Your task to perform on an android device: Is it going to rain tomorrow? Image 0: 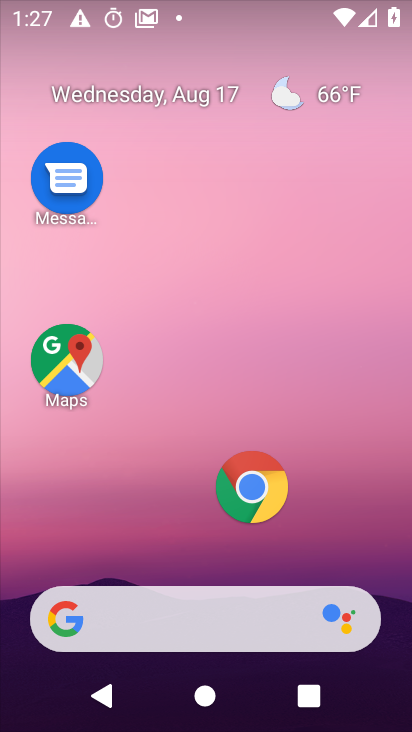
Step 0: press home button
Your task to perform on an android device: Is it going to rain tomorrow? Image 1: 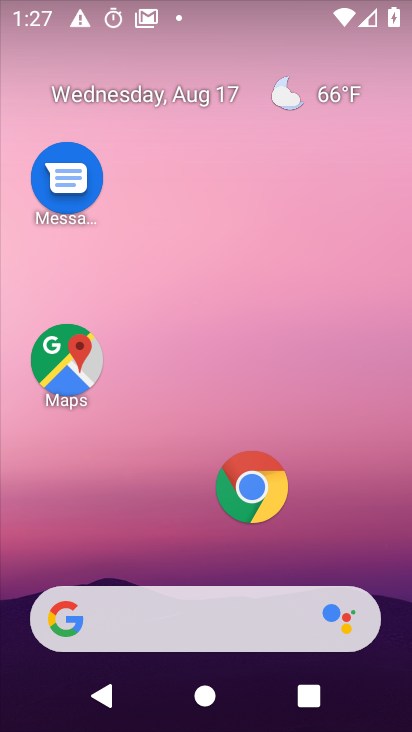
Step 1: drag from (195, 569) to (130, 43)
Your task to perform on an android device: Is it going to rain tomorrow? Image 2: 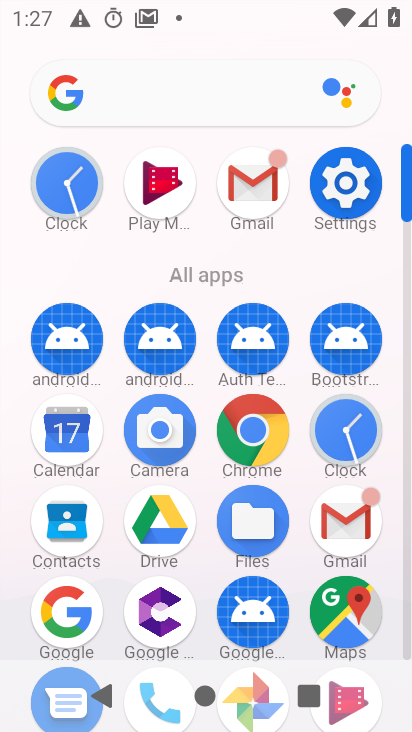
Step 2: click (85, 604)
Your task to perform on an android device: Is it going to rain tomorrow? Image 3: 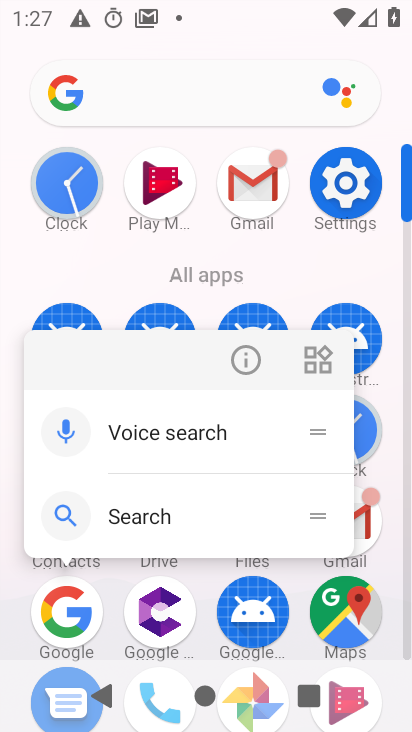
Step 3: click (152, 519)
Your task to perform on an android device: Is it going to rain tomorrow? Image 4: 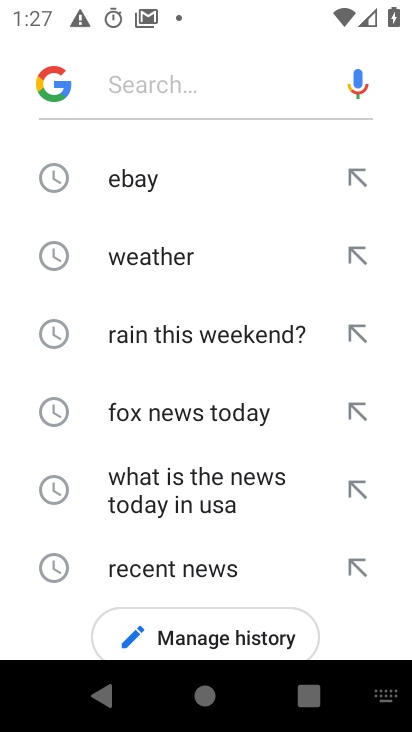
Step 4: type " rain tomorrow?"
Your task to perform on an android device: Is it going to rain tomorrow? Image 5: 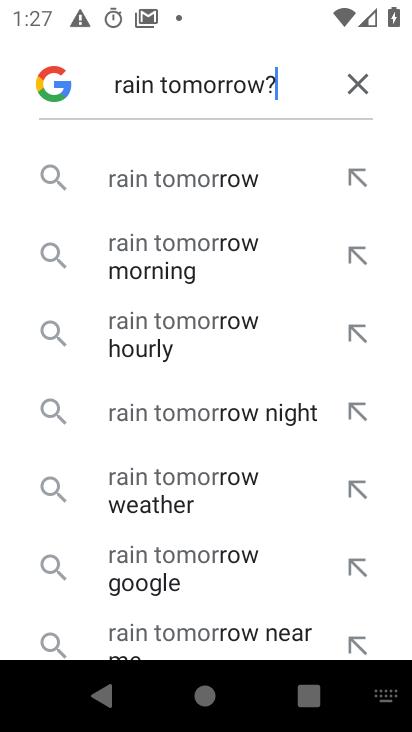
Step 5: press enter
Your task to perform on an android device: Is it going to rain tomorrow? Image 6: 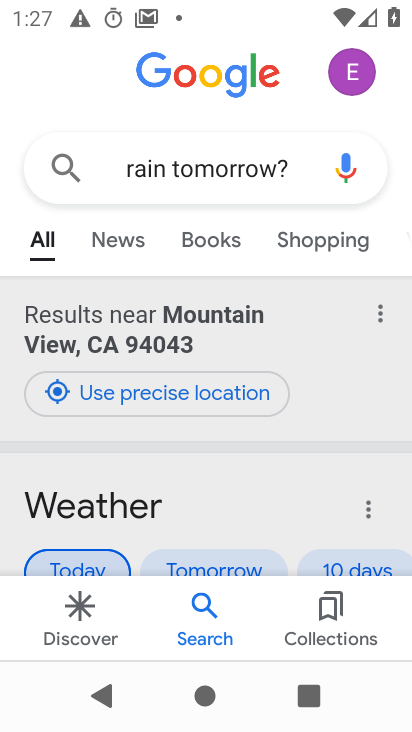
Step 6: task complete